Your task to perform on an android device: change the clock display to analog Image 0: 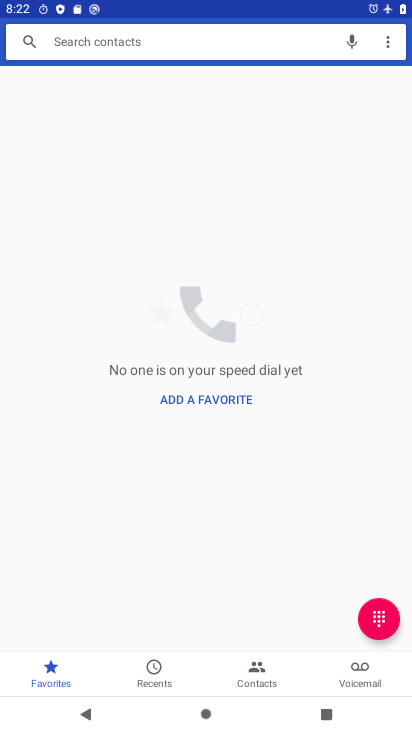
Step 0: press back button
Your task to perform on an android device: change the clock display to analog Image 1: 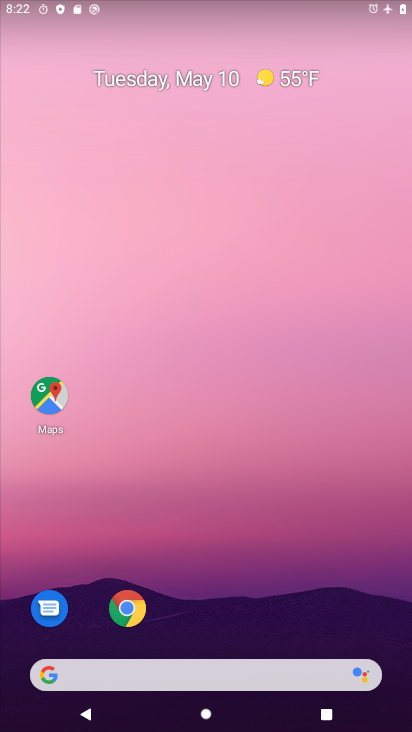
Step 1: drag from (228, 592) to (225, 71)
Your task to perform on an android device: change the clock display to analog Image 2: 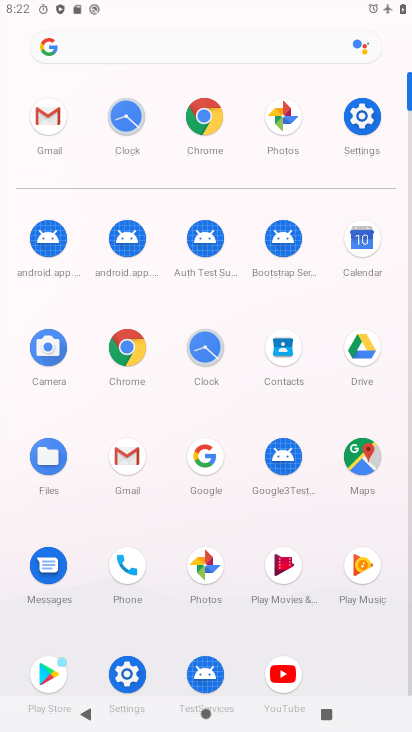
Step 2: click (124, 115)
Your task to perform on an android device: change the clock display to analog Image 3: 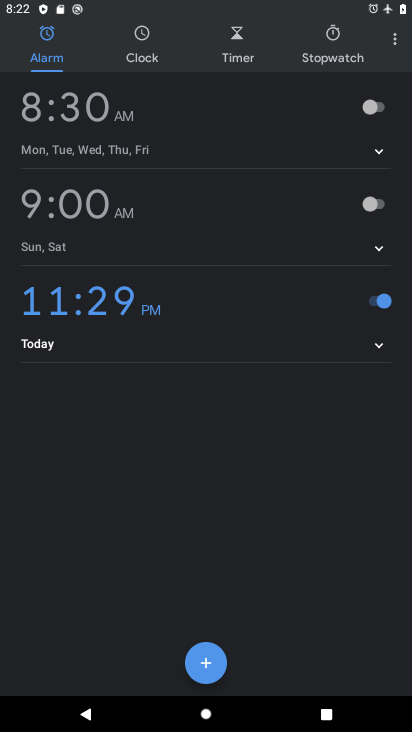
Step 3: click (396, 38)
Your task to perform on an android device: change the clock display to analog Image 4: 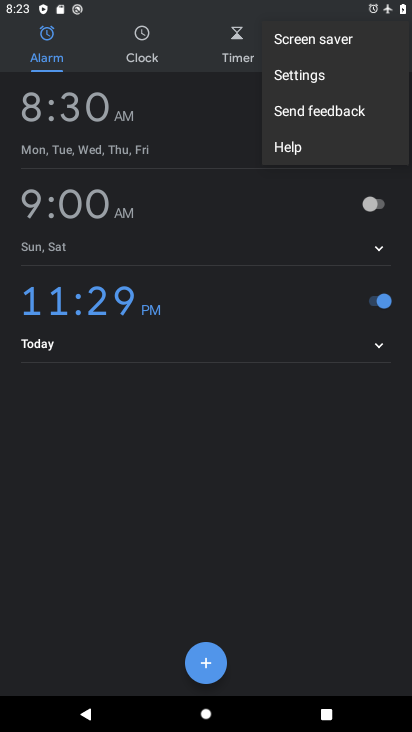
Step 4: click (309, 79)
Your task to perform on an android device: change the clock display to analog Image 5: 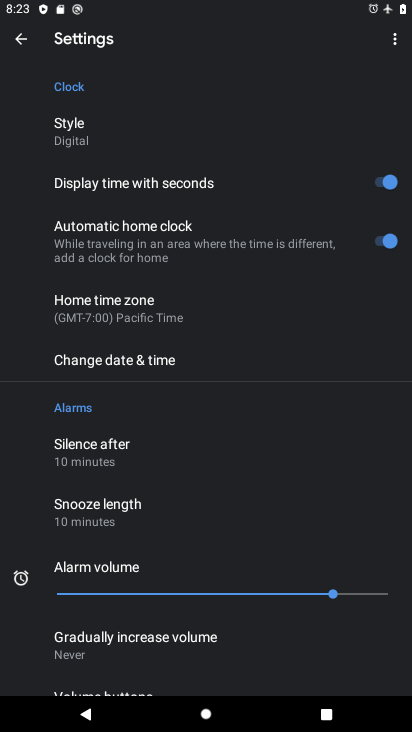
Step 5: click (69, 129)
Your task to perform on an android device: change the clock display to analog Image 6: 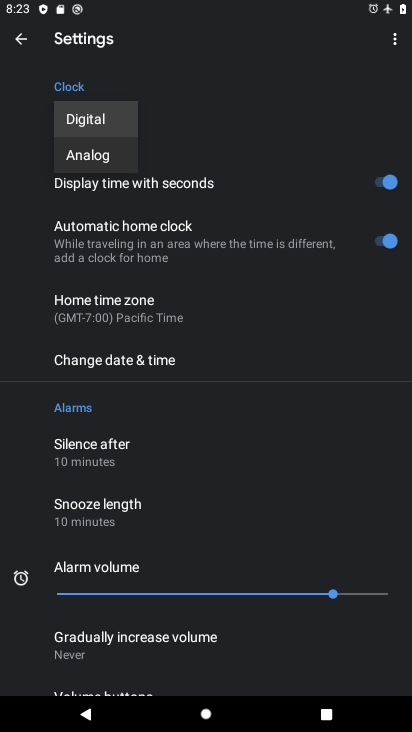
Step 6: click (84, 157)
Your task to perform on an android device: change the clock display to analog Image 7: 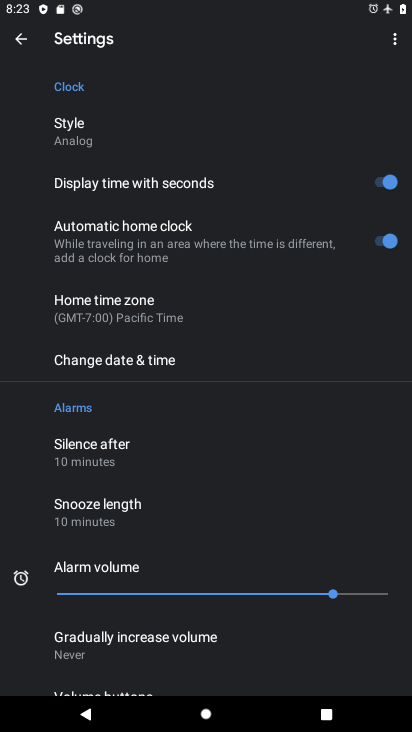
Step 7: task complete